Your task to perform on an android device: Toggle the flashlight Image 0: 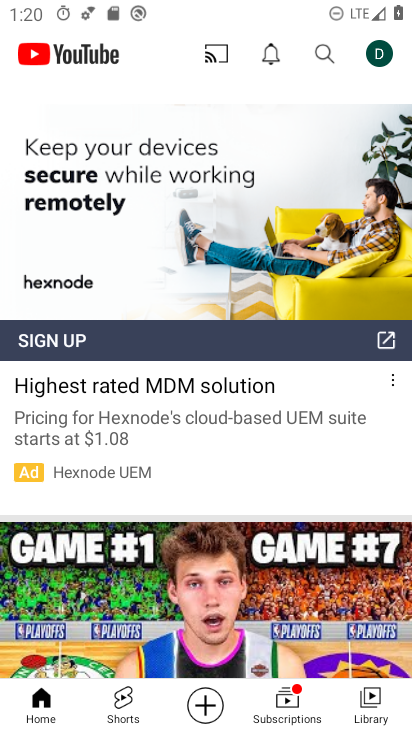
Step 0: press home button
Your task to perform on an android device: Toggle the flashlight Image 1: 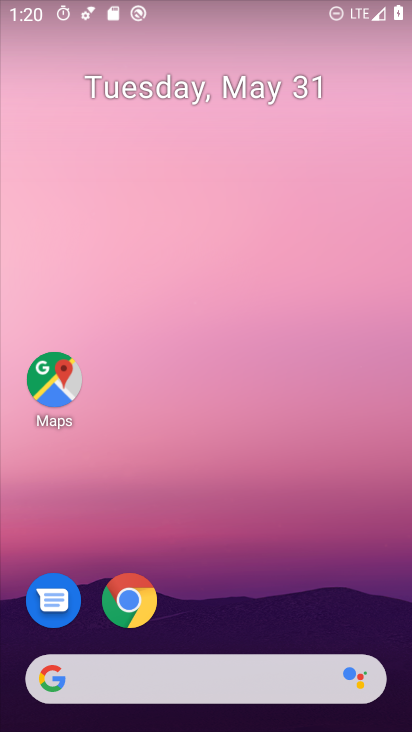
Step 1: drag from (190, 675) to (188, 117)
Your task to perform on an android device: Toggle the flashlight Image 2: 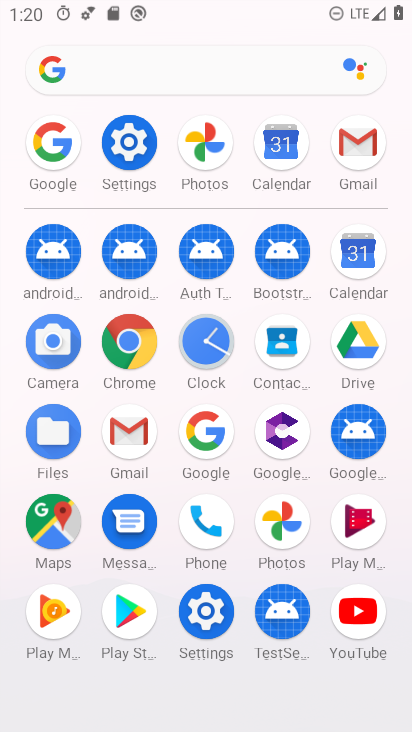
Step 2: click (138, 145)
Your task to perform on an android device: Toggle the flashlight Image 3: 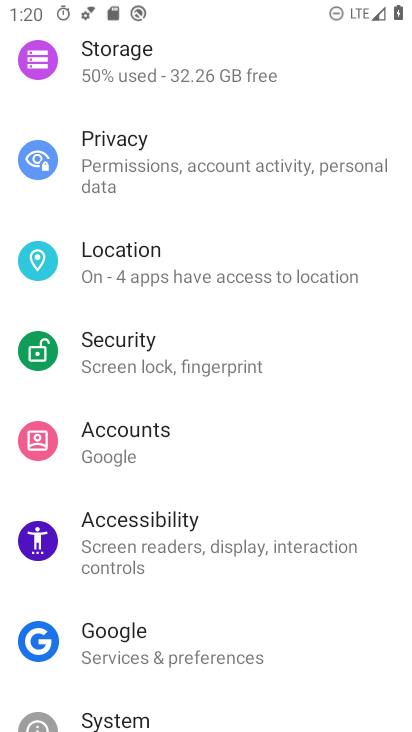
Step 3: task complete